Your task to perform on an android device: change notification settings in the gmail app Image 0: 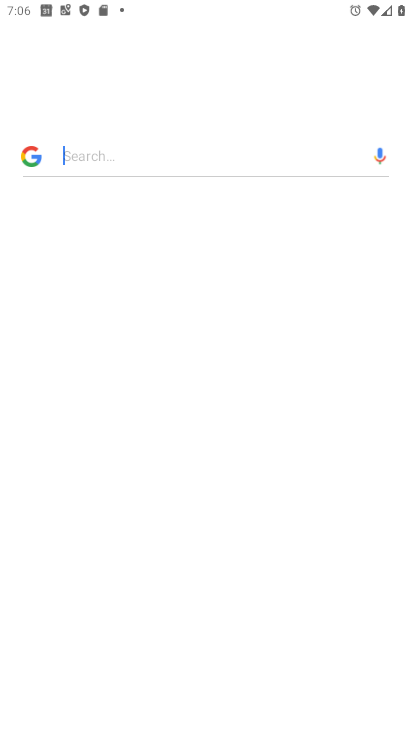
Step 0: drag from (358, 627) to (341, 33)
Your task to perform on an android device: change notification settings in the gmail app Image 1: 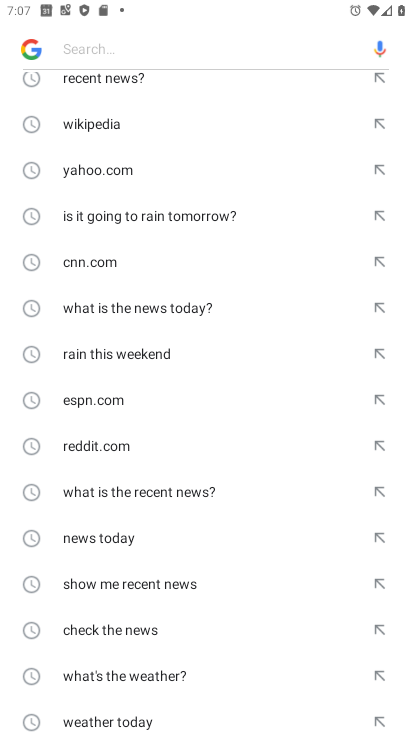
Step 1: press home button
Your task to perform on an android device: change notification settings in the gmail app Image 2: 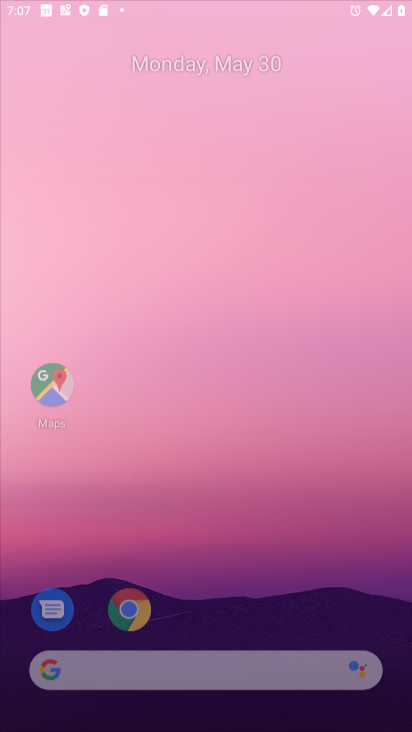
Step 2: drag from (267, 676) to (223, 11)
Your task to perform on an android device: change notification settings in the gmail app Image 3: 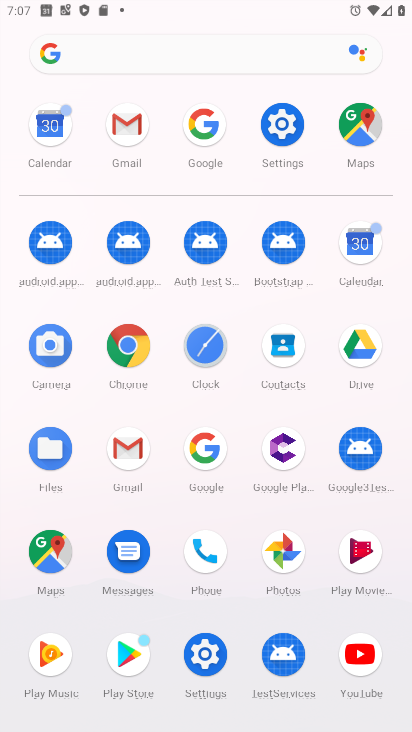
Step 3: click (119, 127)
Your task to perform on an android device: change notification settings in the gmail app Image 4: 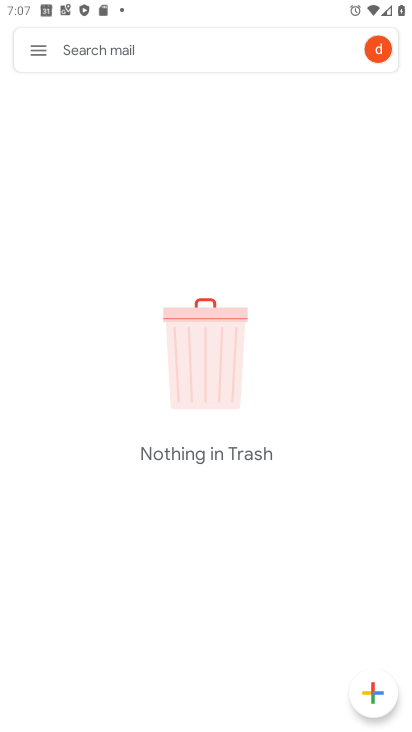
Step 4: click (35, 41)
Your task to perform on an android device: change notification settings in the gmail app Image 5: 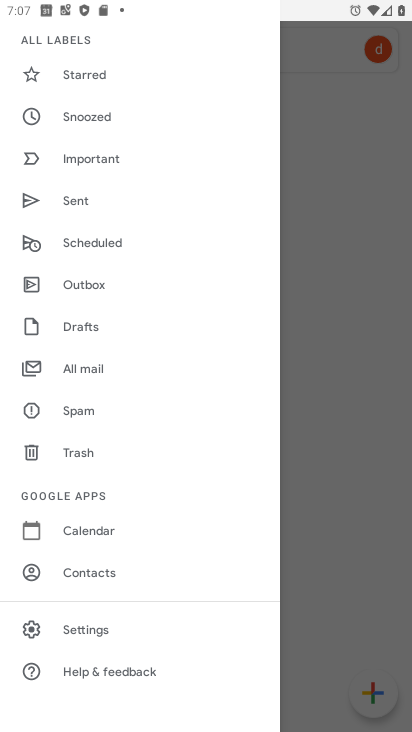
Step 5: click (117, 634)
Your task to perform on an android device: change notification settings in the gmail app Image 6: 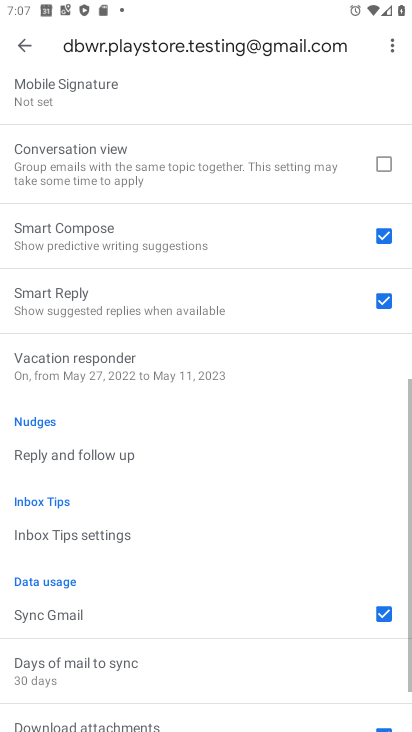
Step 6: drag from (177, 141) to (194, 714)
Your task to perform on an android device: change notification settings in the gmail app Image 7: 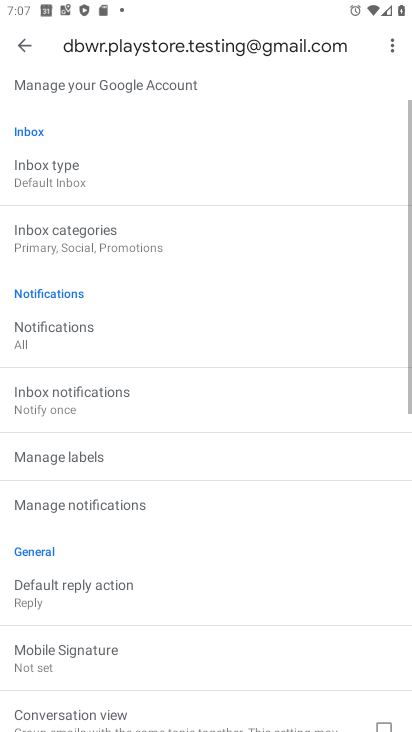
Step 7: click (180, 334)
Your task to perform on an android device: change notification settings in the gmail app Image 8: 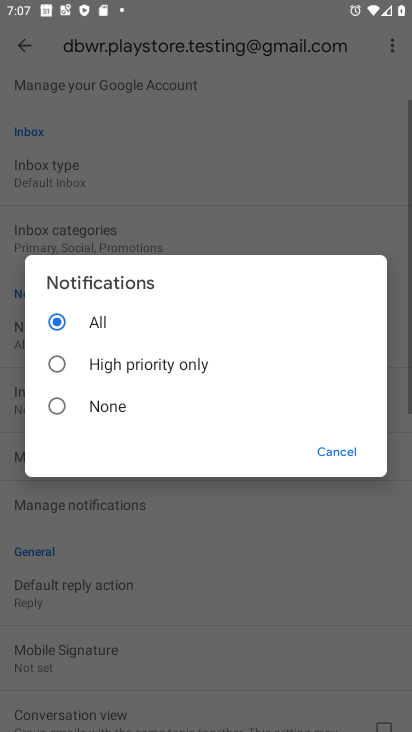
Step 8: click (64, 402)
Your task to perform on an android device: change notification settings in the gmail app Image 9: 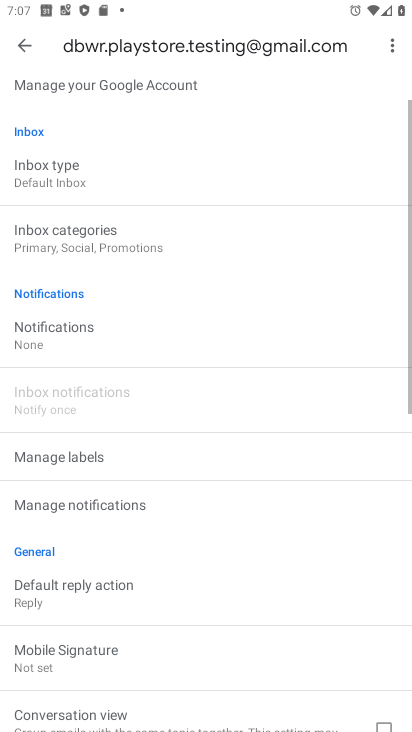
Step 9: task complete